Your task to perform on an android device: Go to privacy settings Image 0: 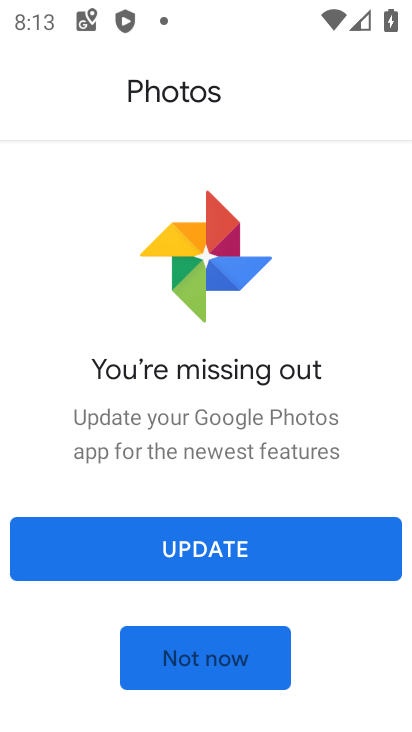
Step 0: press back button
Your task to perform on an android device: Go to privacy settings Image 1: 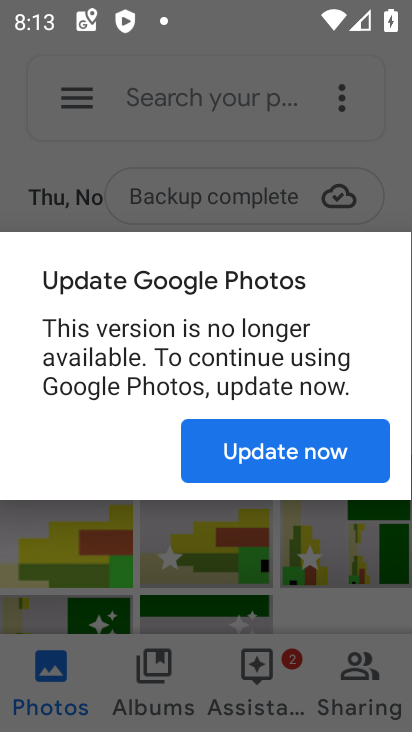
Step 1: press back button
Your task to perform on an android device: Go to privacy settings Image 2: 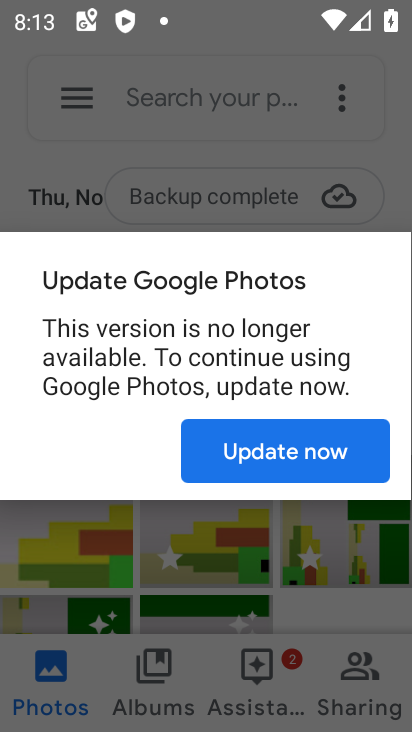
Step 2: press home button
Your task to perform on an android device: Go to privacy settings Image 3: 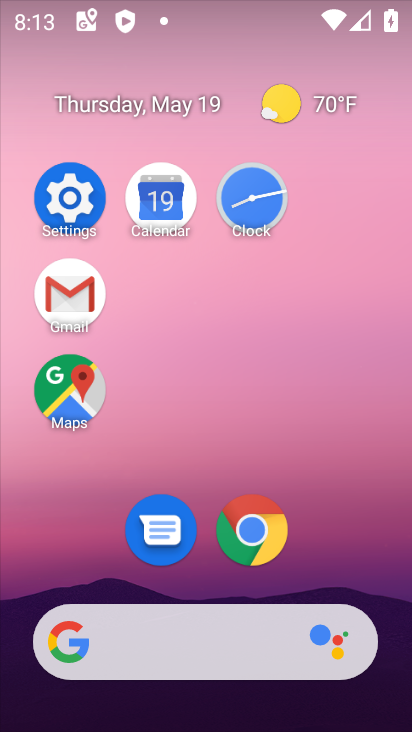
Step 3: click (63, 232)
Your task to perform on an android device: Go to privacy settings Image 4: 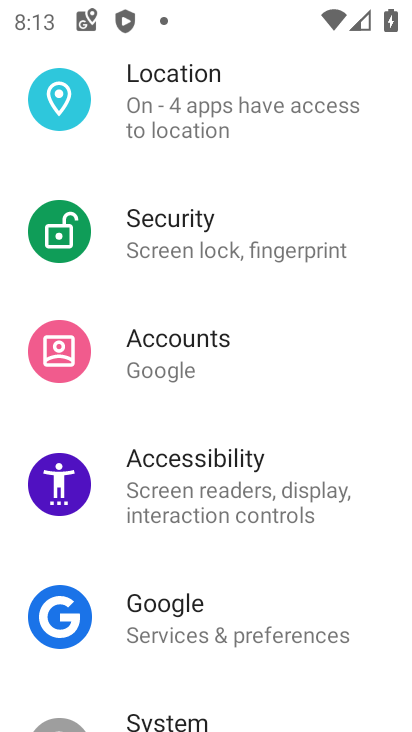
Step 4: drag from (283, 202) to (298, 610)
Your task to perform on an android device: Go to privacy settings Image 5: 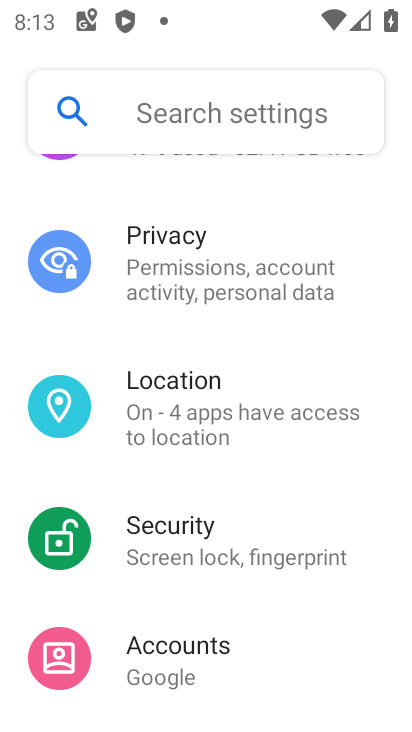
Step 5: click (302, 237)
Your task to perform on an android device: Go to privacy settings Image 6: 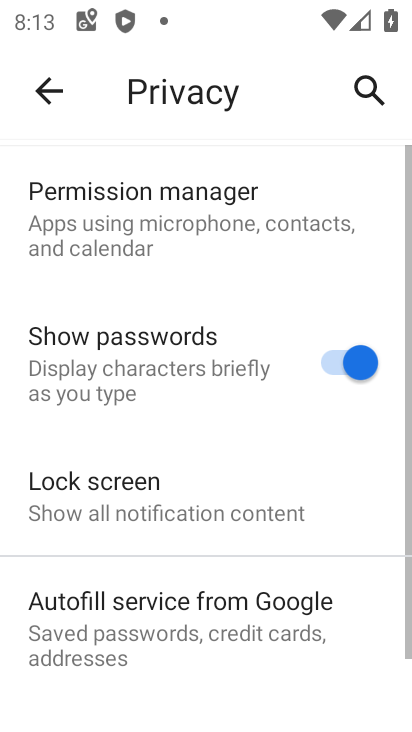
Step 6: task complete